Your task to perform on an android device: turn off picture-in-picture Image 0: 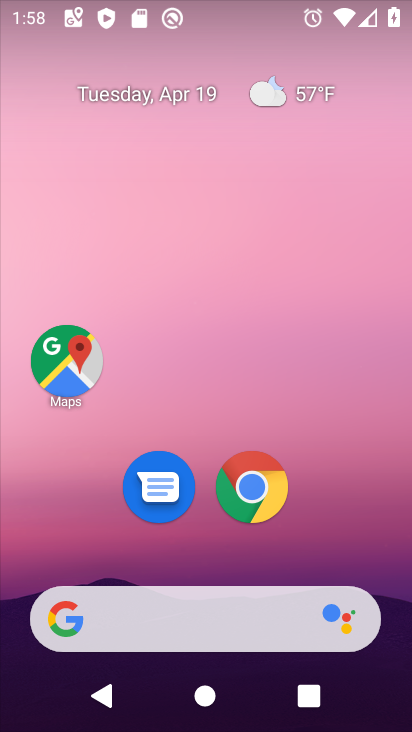
Step 0: drag from (393, 294) to (409, 164)
Your task to perform on an android device: turn off picture-in-picture Image 1: 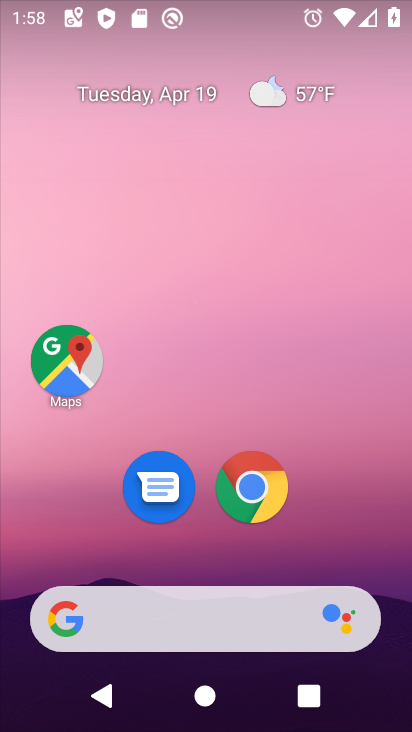
Step 1: drag from (338, 486) to (370, 196)
Your task to perform on an android device: turn off picture-in-picture Image 2: 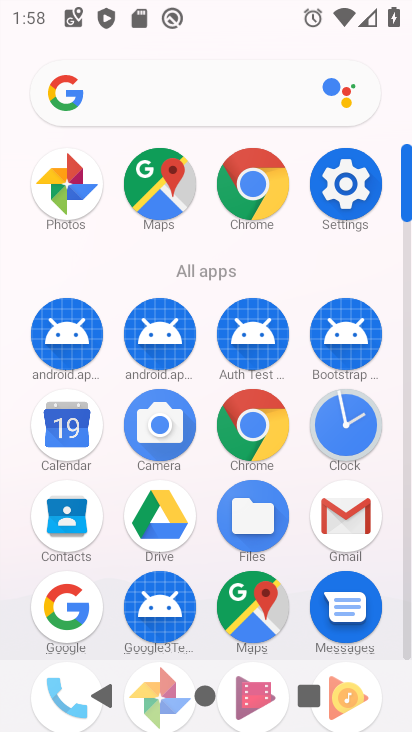
Step 2: click (343, 175)
Your task to perform on an android device: turn off picture-in-picture Image 3: 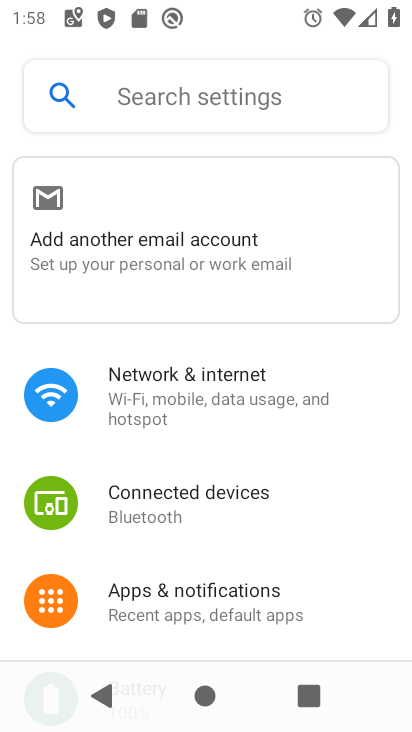
Step 3: drag from (304, 548) to (335, 182)
Your task to perform on an android device: turn off picture-in-picture Image 4: 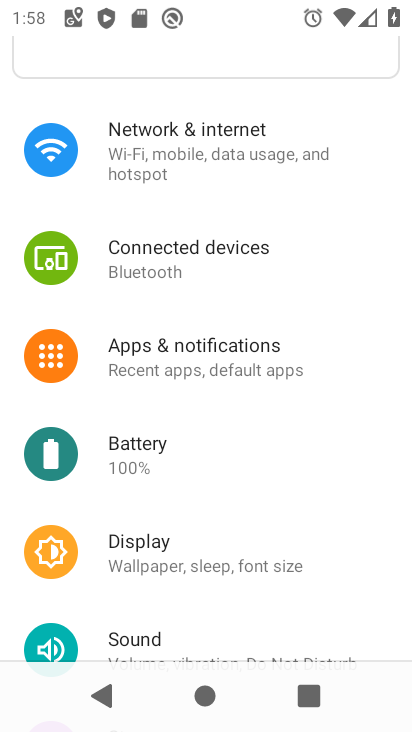
Step 4: click (254, 348)
Your task to perform on an android device: turn off picture-in-picture Image 5: 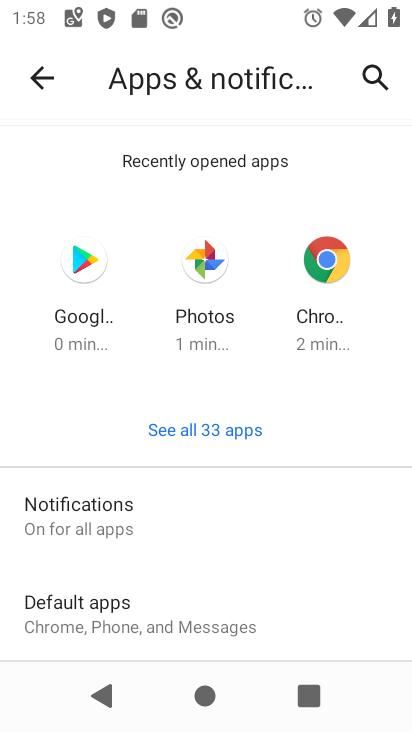
Step 5: drag from (313, 438) to (338, 255)
Your task to perform on an android device: turn off picture-in-picture Image 6: 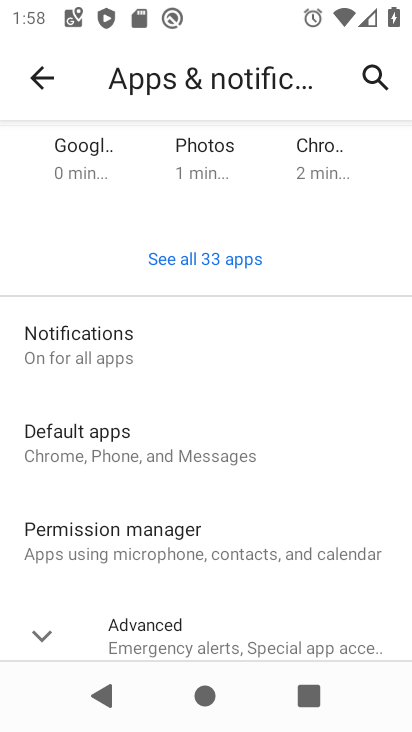
Step 6: drag from (337, 448) to (355, 238)
Your task to perform on an android device: turn off picture-in-picture Image 7: 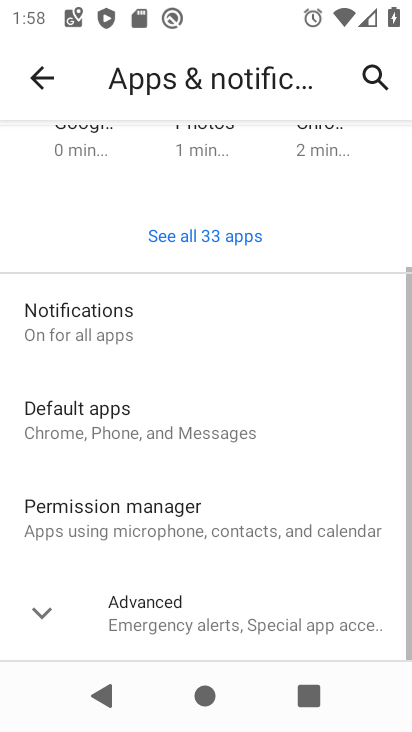
Step 7: click (254, 625)
Your task to perform on an android device: turn off picture-in-picture Image 8: 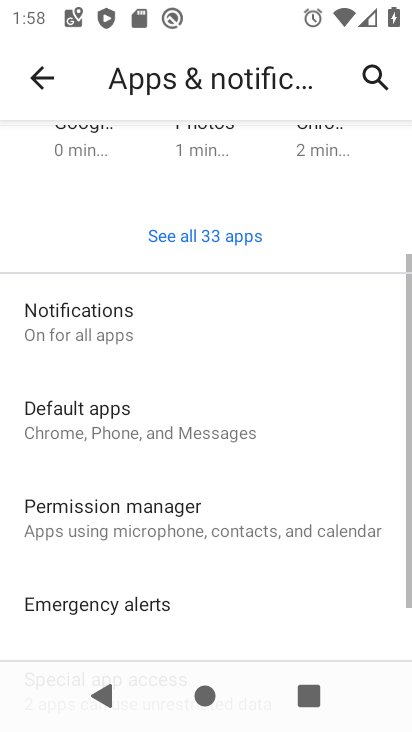
Step 8: drag from (266, 607) to (318, 319)
Your task to perform on an android device: turn off picture-in-picture Image 9: 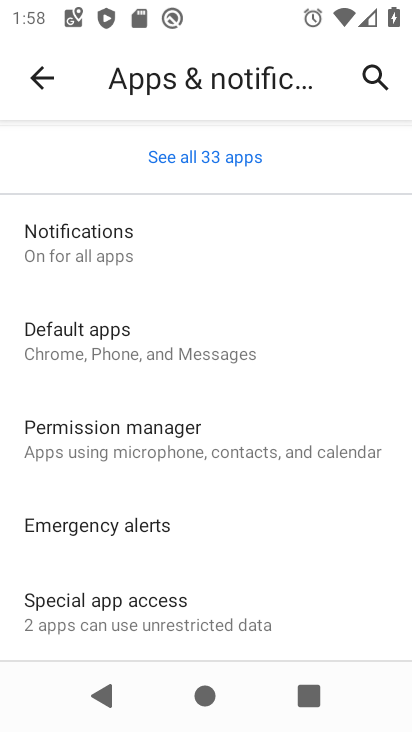
Step 9: drag from (282, 554) to (317, 281)
Your task to perform on an android device: turn off picture-in-picture Image 10: 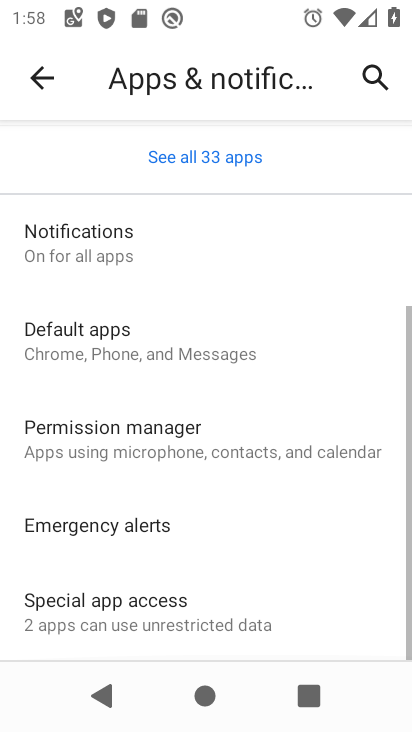
Step 10: click (198, 626)
Your task to perform on an android device: turn off picture-in-picture Image 11: 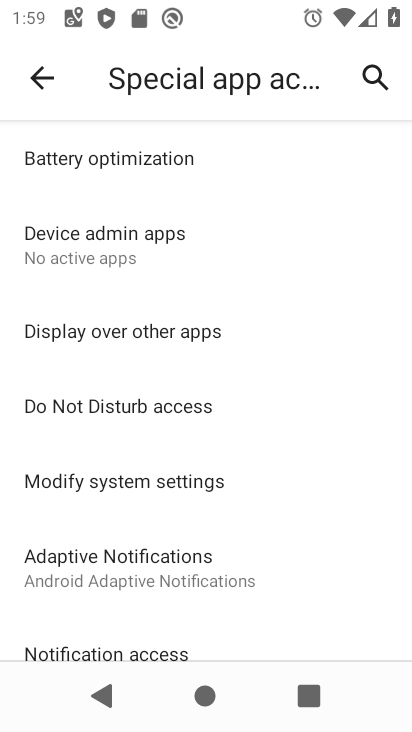
Step 11: drag from (239, 582) to (290, 316)
Your task to perform on an android device: turn off picture-in-picture Image 12: 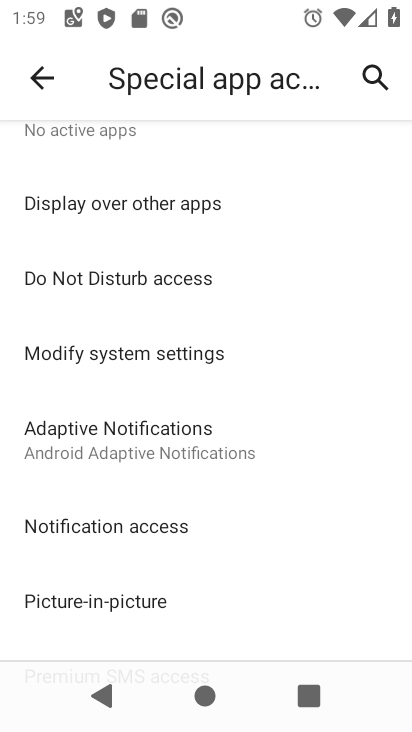
Step 12: click (150, 599)
Your task to perform on an android device: turn off picture-in-picture Image 13: 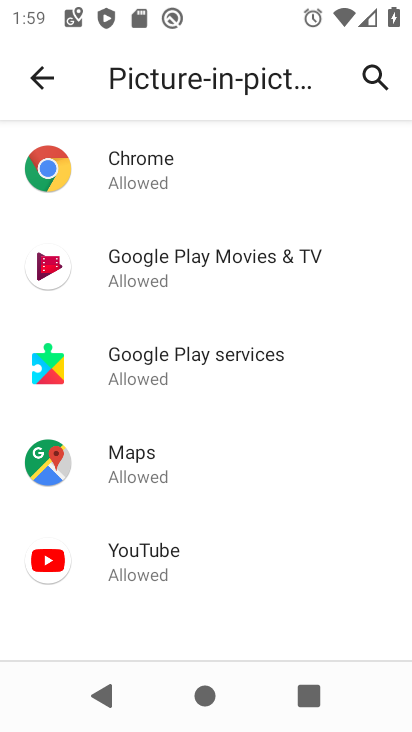
Step 13: click (207, 158)
Your task to perform on an android device: turn off picture-in-picture Image 14: 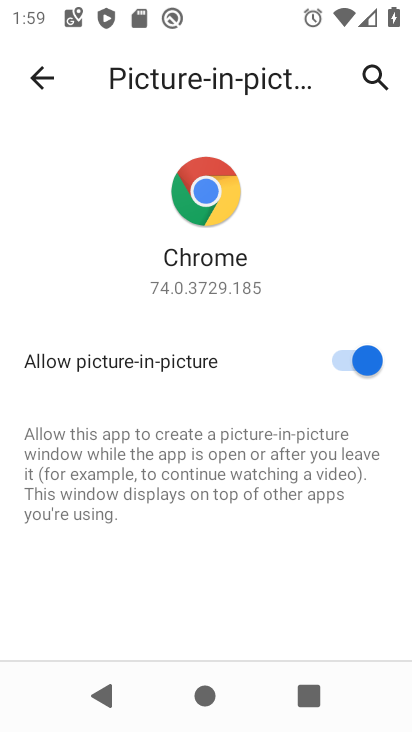
Step 14: click (352, 361)
Your task to perform on an android device: turn off picture-in-picture Image 15: 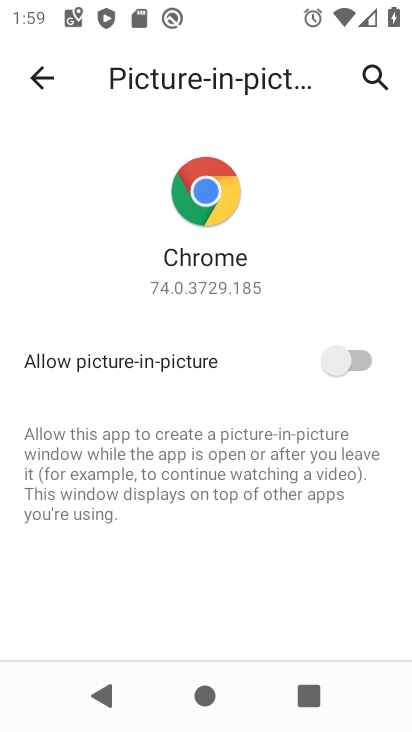
Step 15: task complete